Your task to perform on an android device: turn on notifications settings in the gmail app Image 0: 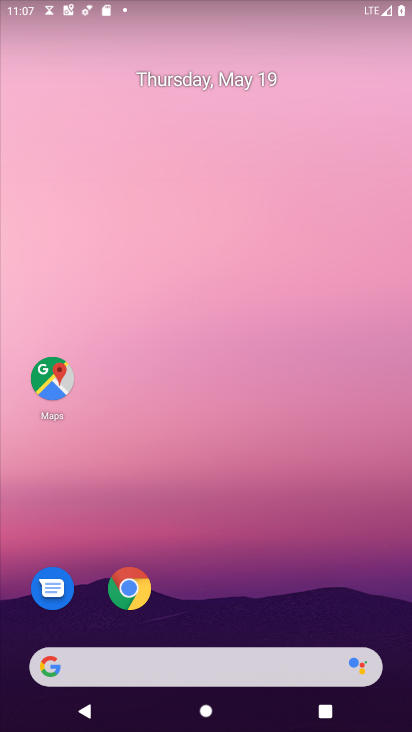
Step 0: drag from (276, 478) to (107, 20)
Your task to perform on an android device: turn on notifications settings in the gmail app Image 1: 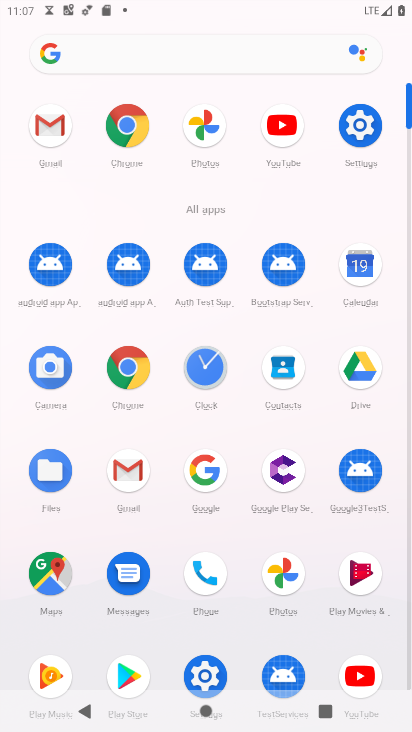
Step 1: click (39, 103)
Your task to perform on an android device: turn on notifications settings in the gmail app Image 2: 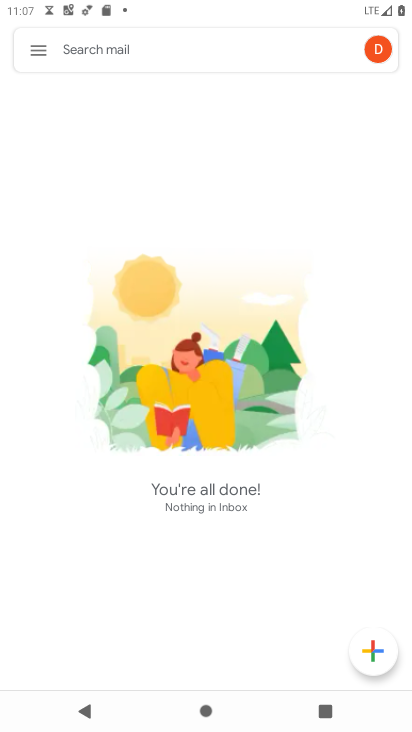
Step 2: click (34, 49)
Your task to perform on an android device: turn on notifications settings in the gmail app Image 3: 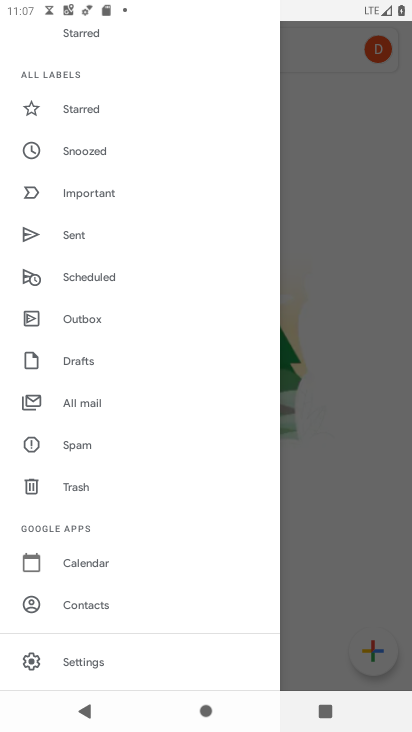
Step 3: click (115, 653)
Your task to perform on an android device: turn on notifications settings in the gmail app Image 4: 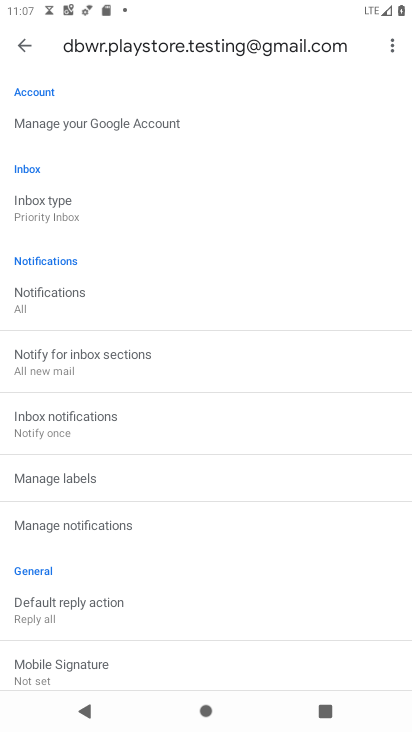
Step 4: click (99, 295)
Your task to perform on an android device: turn on notifications settings in the gmail app Image 5: 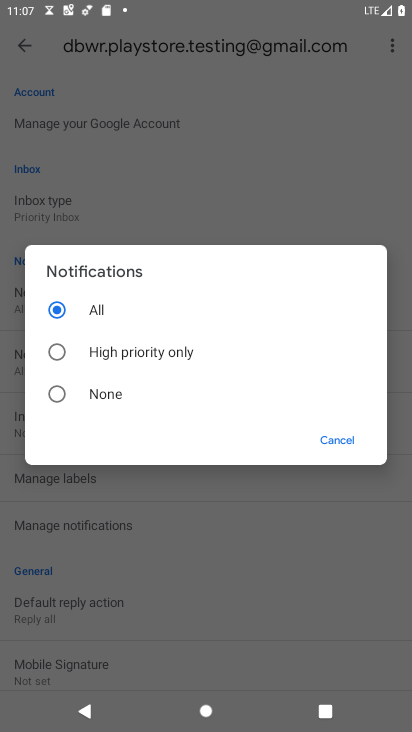
Step 5: task complete